Your task to perform on an android device: toggle location history Image 0: 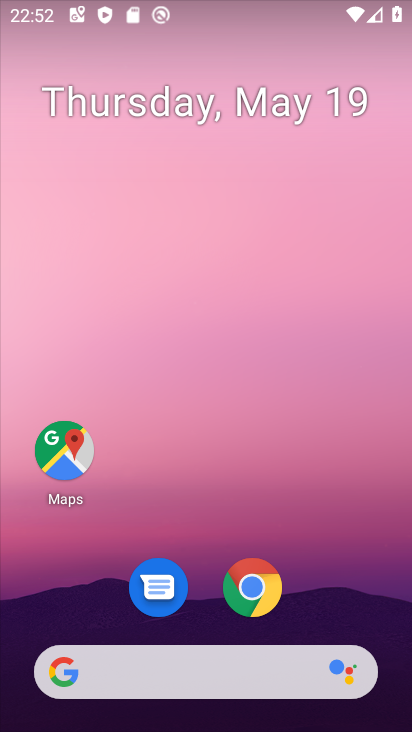
Step 0: drag from (289, 696) to (242, 300)
Your task to perform on an android device: toggle location history Image 1: 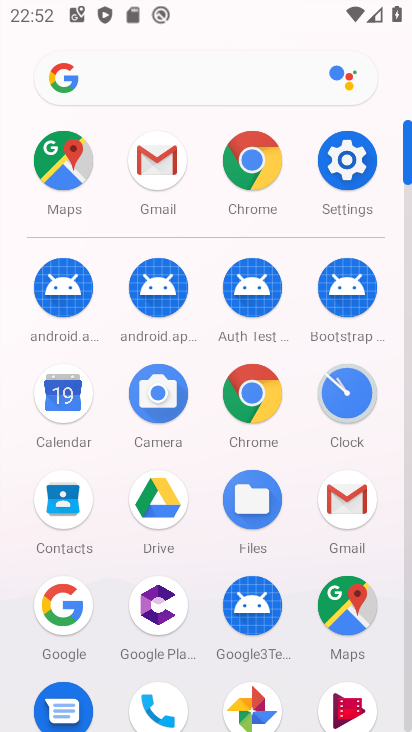
Step 1: click (347, 169)
Your task to perform on an android device: toggle location history Image 2: 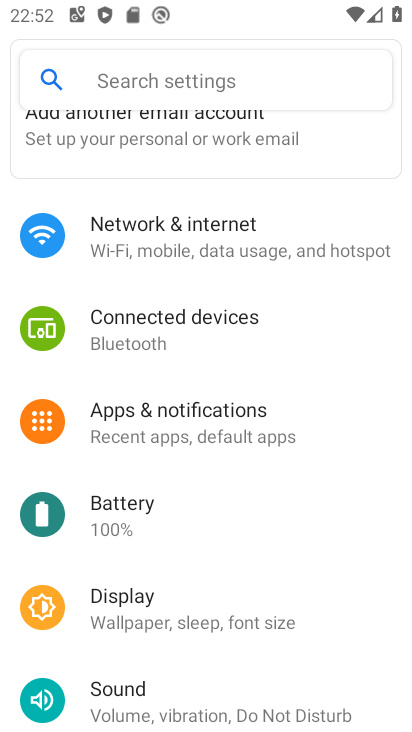
Step 2: click (221, 52)
Your task to perform on an android device: toggle location history Image 3: 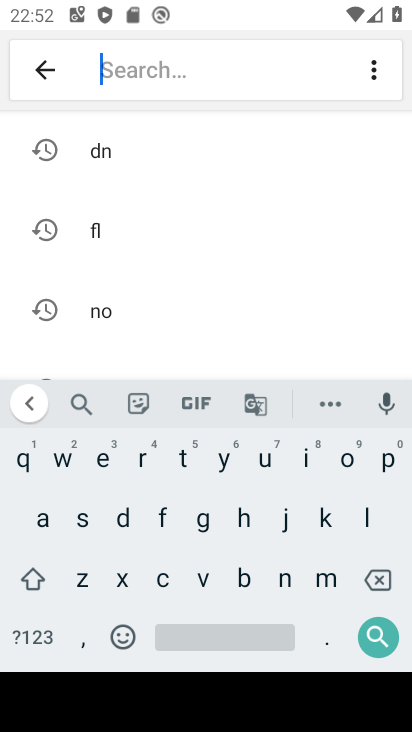
Step 3: click (363, 515)
Your task to perform on an android device: toggle location history Image 4: 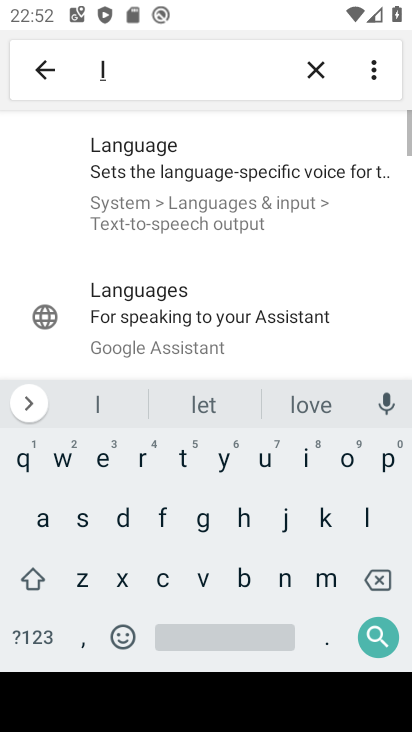
Step 4: click (344, 459)
Your task to perform on an android device: toggle location history Image 5: 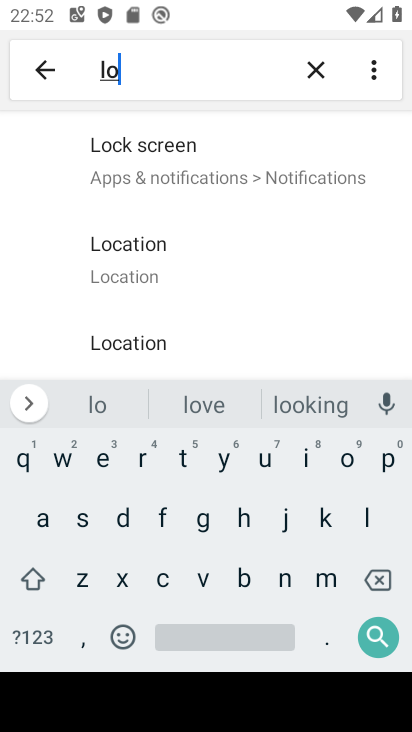
Step 5: click (116, 245)
Your task to perform on an android device: toggle location history Image 6: 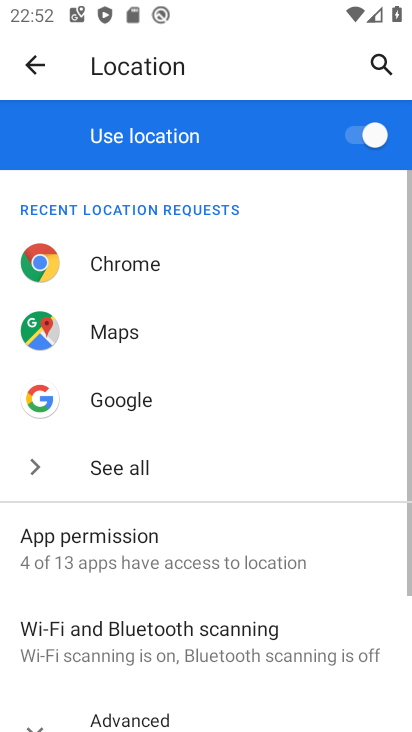
Step 6: drag from (190, 544) to (207, 364)
Your task to perform on an android device: toggle location history Image 7: 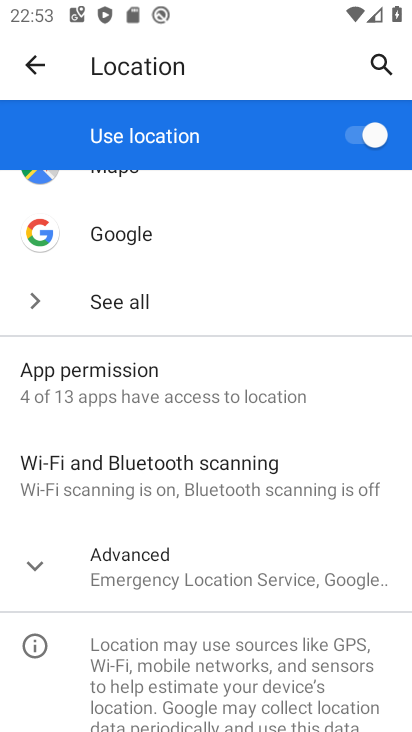
Step 7: click (33, 555)
Your task to perform on an android device: toggle location history Image 8: 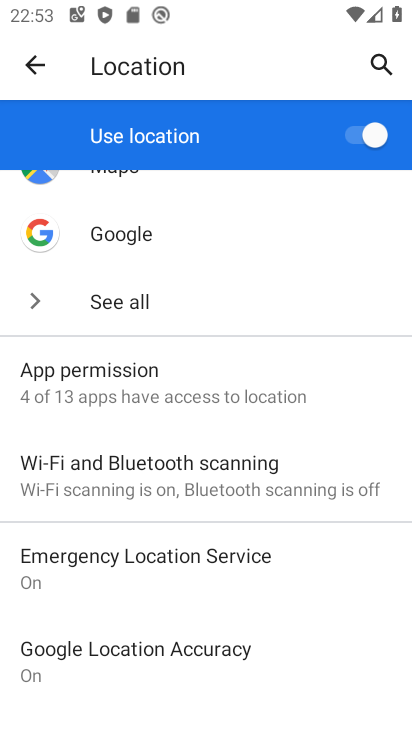
Step 8: drag from (125, 561) to (159, 432)
Your task to perform on an android device: toggle location history Image 9: 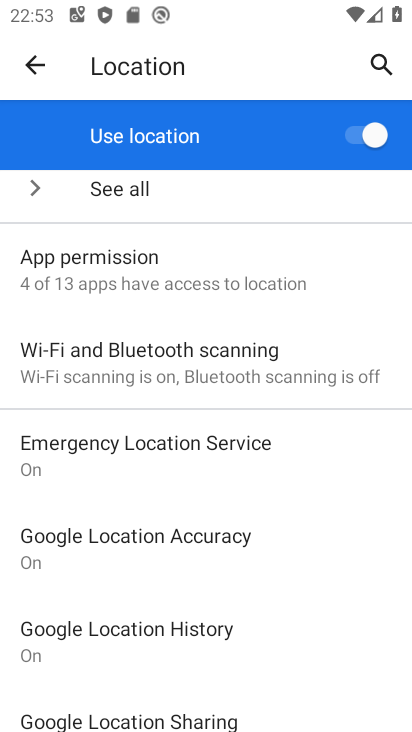
Step 9: click (129, 602)
Your task to perform on an android device: toggle location history Image 10: 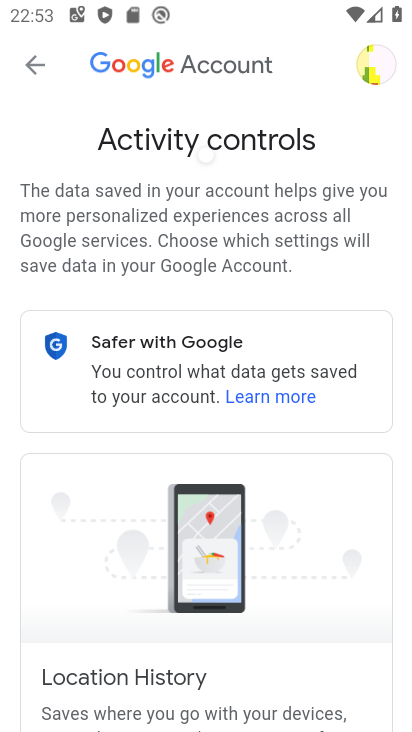
Step 10: task complete